Your task to perform on an android device: Open the web browser Image 0: 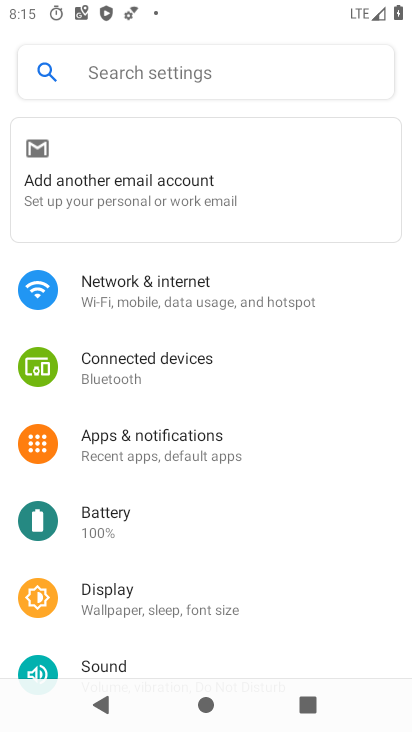
Step 0: press home button
Your task to perform on an android device: Open the web browser Image 1: 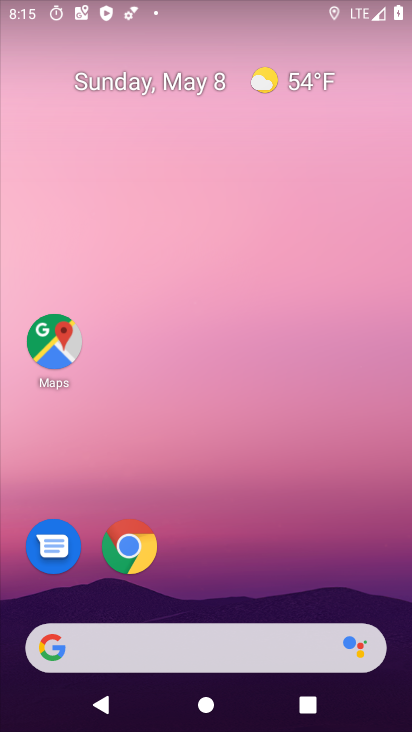
Step 1: click (132, 540)
Your task to perform on an android device: Open the web browser Image 2: 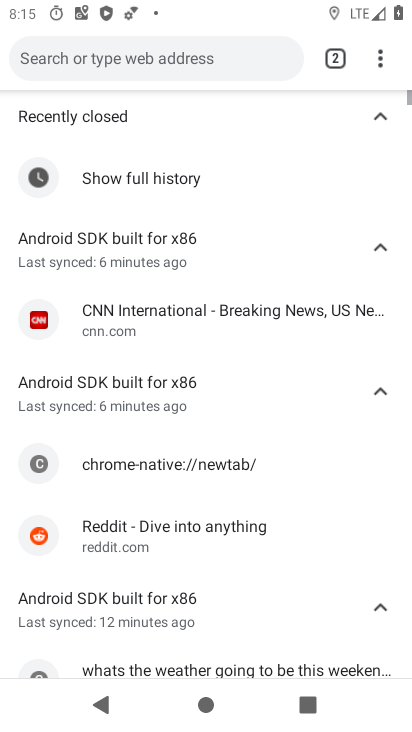
Step 2: task complete